Your task to perform on an android device: Is it going to rain today? Image 0: 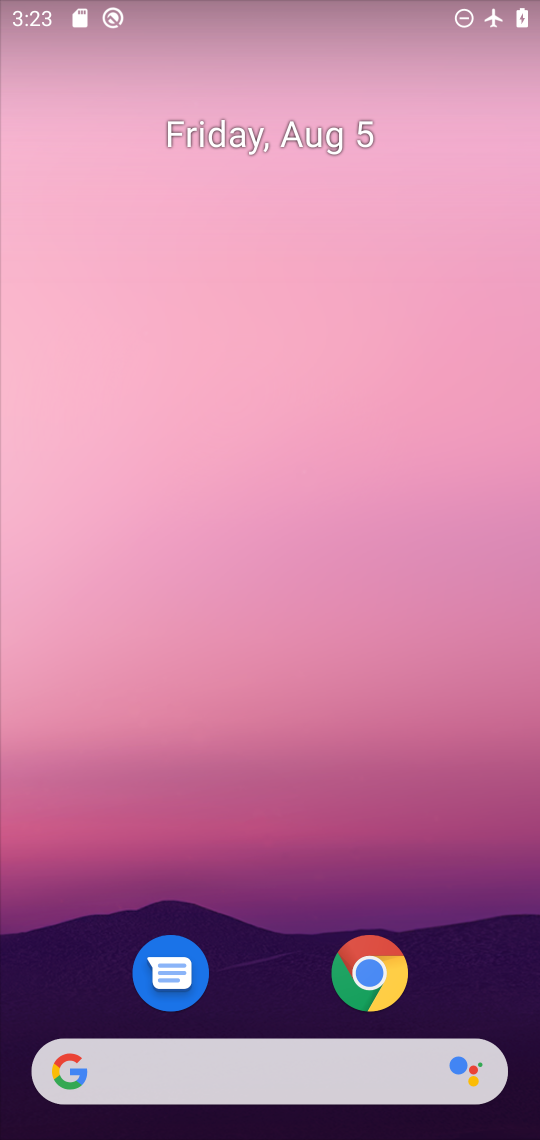
Step 0: click (257, 1087)
Your task to perform on an android device: Is it going to rain today? Image 1: 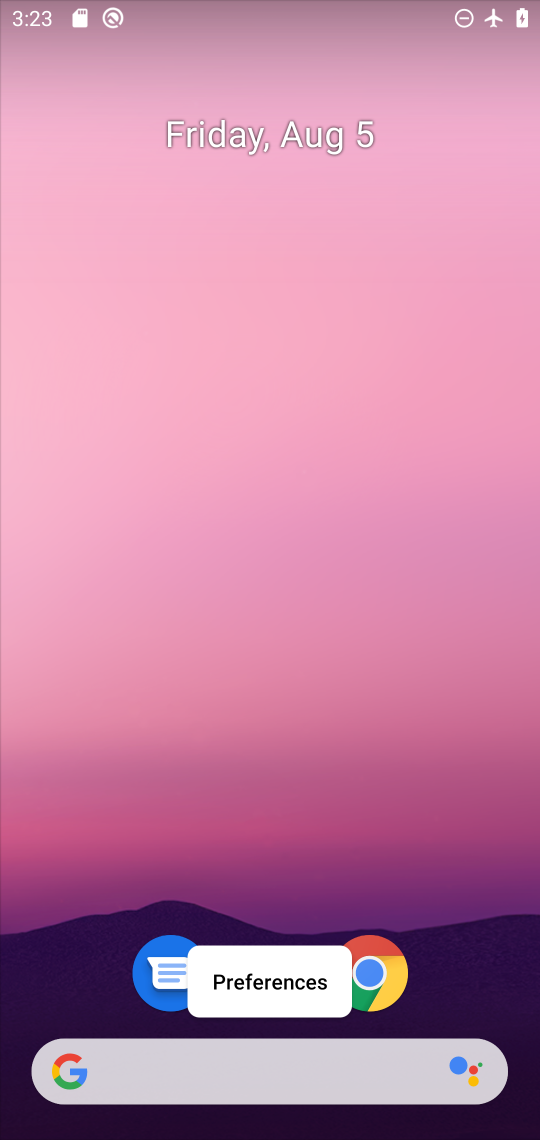
Step 1: click (273, 1066)
Your task to perform on an android device: Is it going to rain today? Image 2: 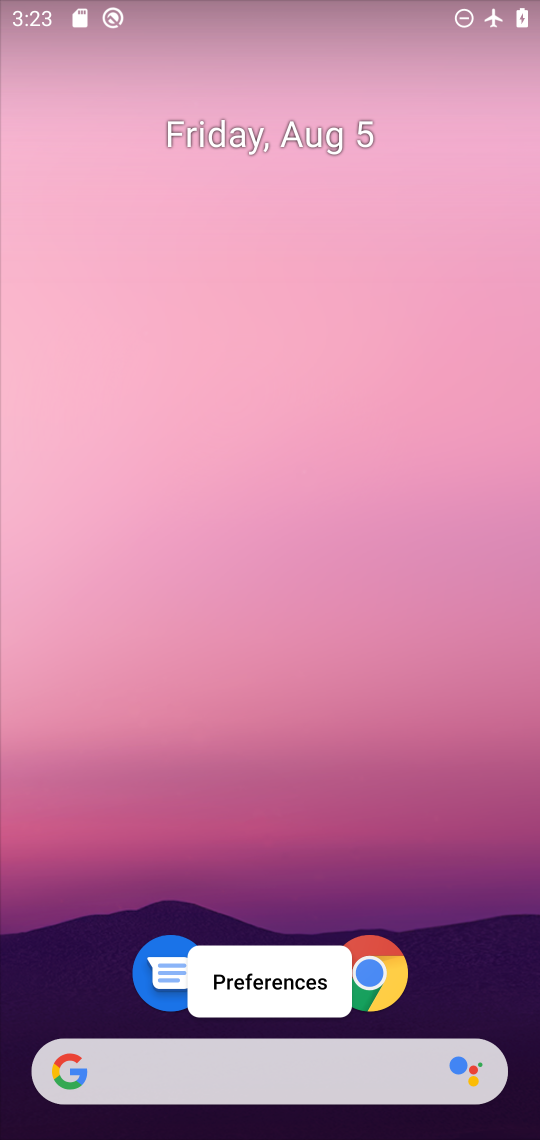
Step 2: click (272, 1065)
Your task to perform on an android device: Is it going to rain today? Image 3: 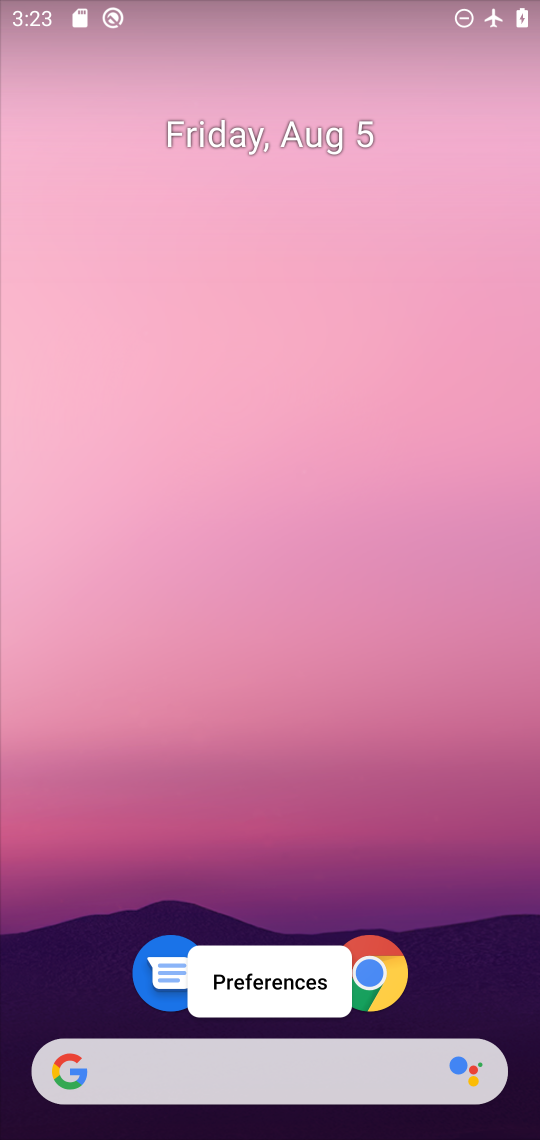
Step 3: click (370, 1048)
Your task to perform on an android device: Is it going to rain today? Image 4: 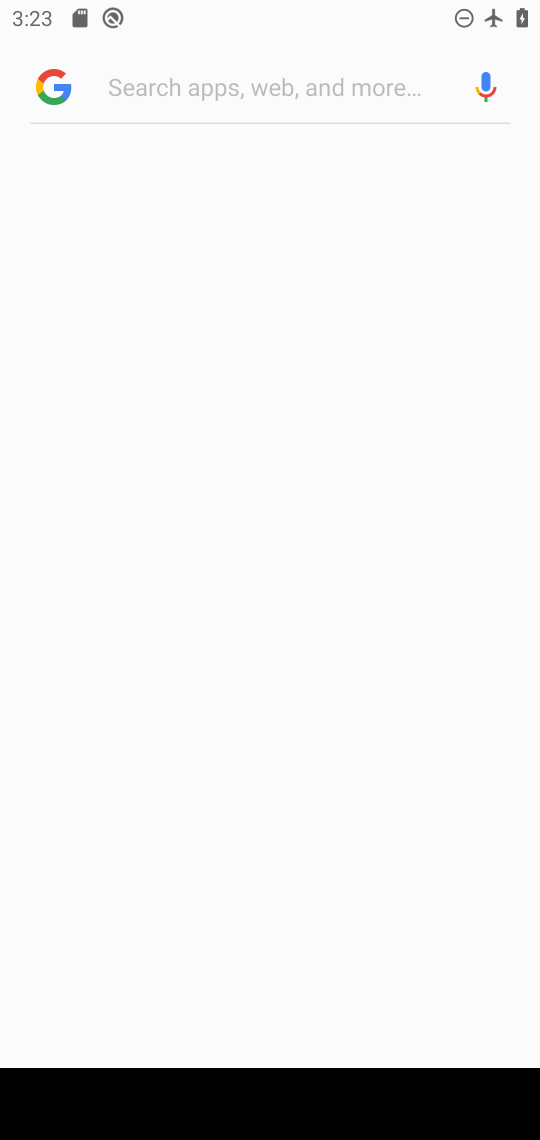
Step 4: task complete